Your task to perform on an android device: turn on showing notifications on the lock screen Image 0: 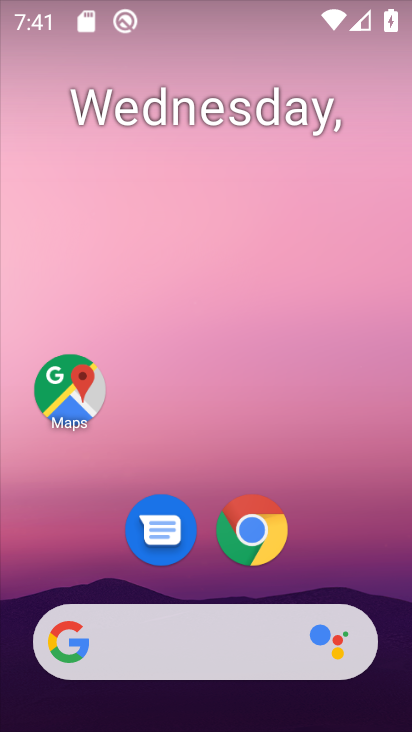
Step 0: drag from (399, 660) to (285, 81)
Your task to perform on an android device: turn on showing notifications on the lock screen Image 1: 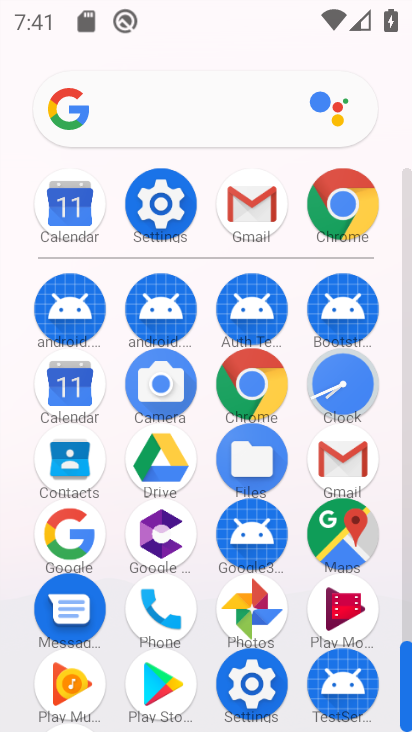
Step 1: click (246, 694)
Your task to perform on an android device: turn on showing notifications on the lock screen Image 2: 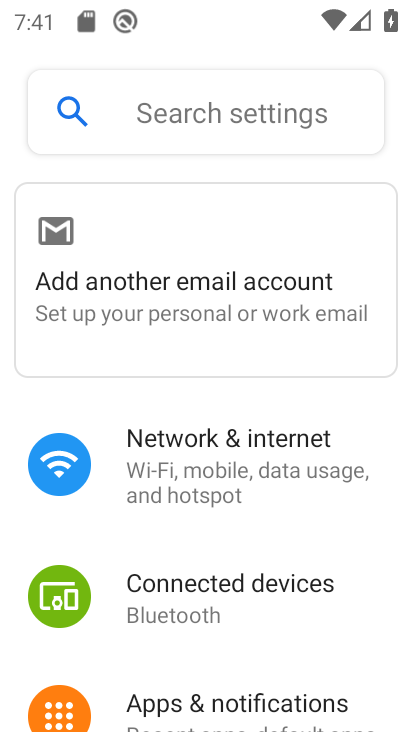
Step 2: drag from (233, 666) to (193, 254)
Your task to perform on an android device: turn on showing notifications on the lock screen Image 3: 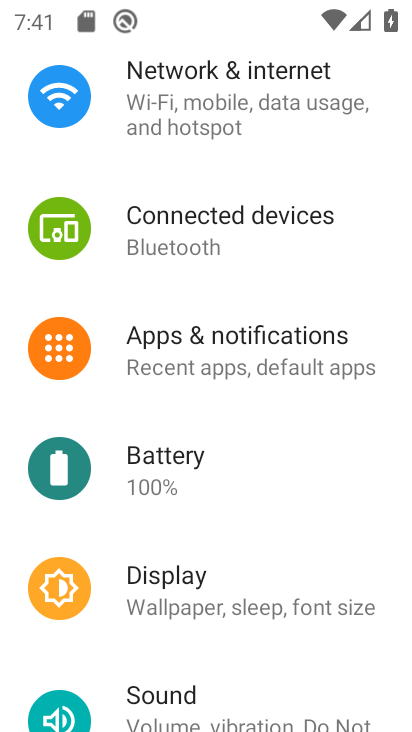
Step 3: click (203, 351)
Your task to perform on an android device: turn on showing notifications on the lock screen Image 4: 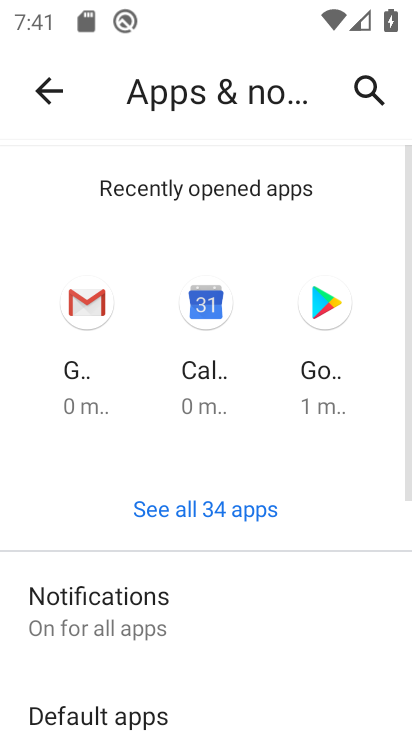
Step 4: click (177, 600)
Your task to perform on an android device: turn on showing notifications on the lock screen Image 5: 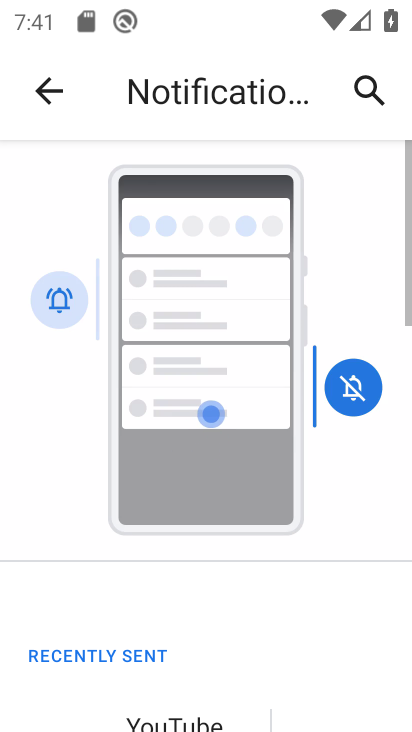
Step 5: drag from (223, 651) to (182, 39)
Your task to perform on an android device: turn on showing notifications on the lock screen Image 6: 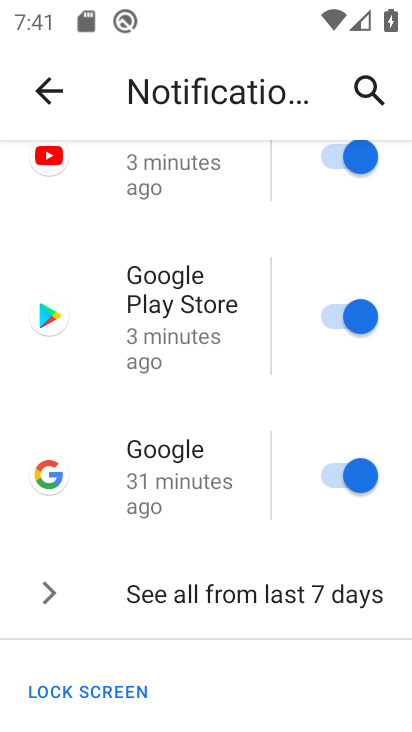
Step 6: drag from (177, 615) to (184, 277)
Your task to perform on an android device: turn on showing notifications on the lock screen Image 7: 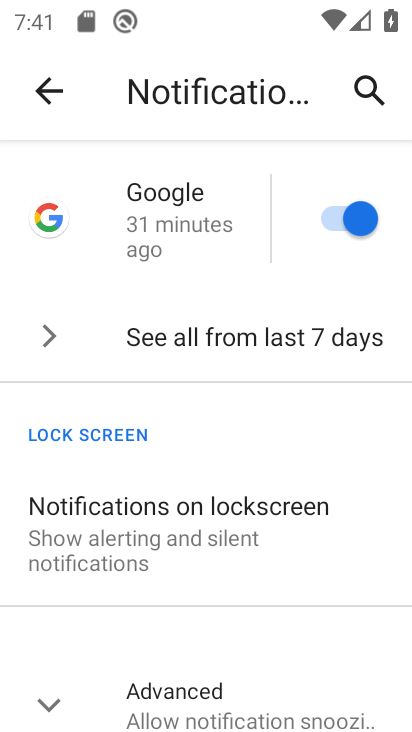
Step 7: click (195, 547)
Your task to perform on an android device: turn on showing notifications on the lock screen Image 8: 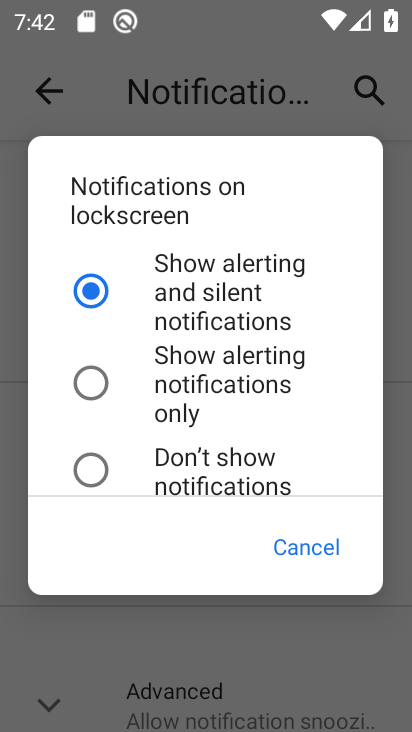
Step 8: task complete